Your task to perform on an android device: Set the phone to "Do not disturb". Image 0: 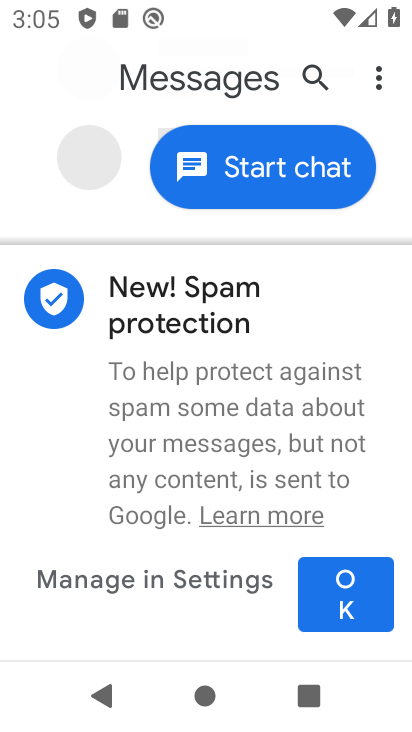
Step 0: press home button
Your task to perform on an android device: Set the phone to "Do not disturb". Image 1: 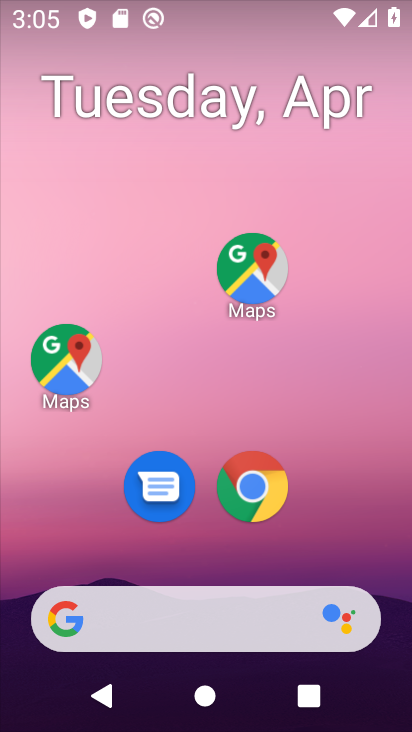
Step 1: drag from (228, 426) to (205, 127)
Your task to perform on an android device: Set the phone to "Do not disturb". Image 2: 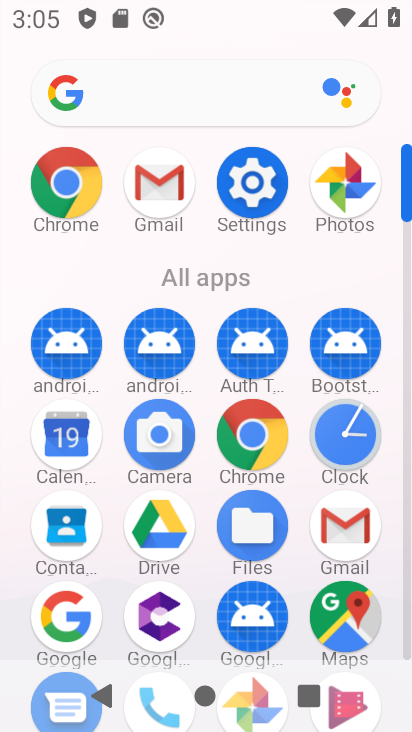
Step 2: click (250, 196)
Your task to perform on an android device: Set the phone to "Do not disturb". Image 3: 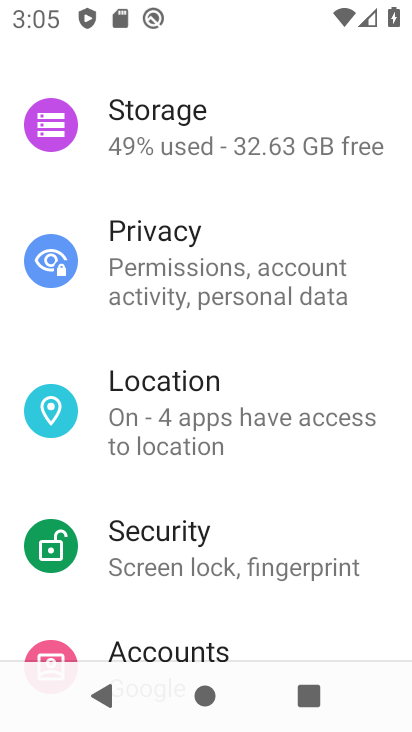
Step 3: drag from (180, 507) to (208, 114)
Your task to perform on an android device: Set the phone to "Do not disturb". Image 4: 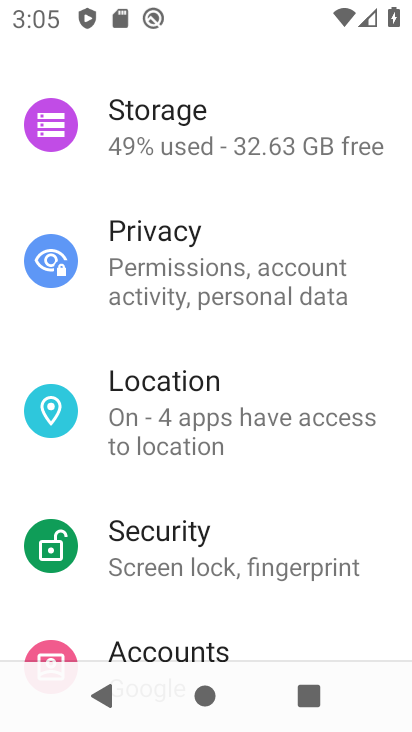
Step 4: drag from (216, 551) to (210, 210)
Your task to perform on an android device: Set the phone to "Do not disturb". Image 5: 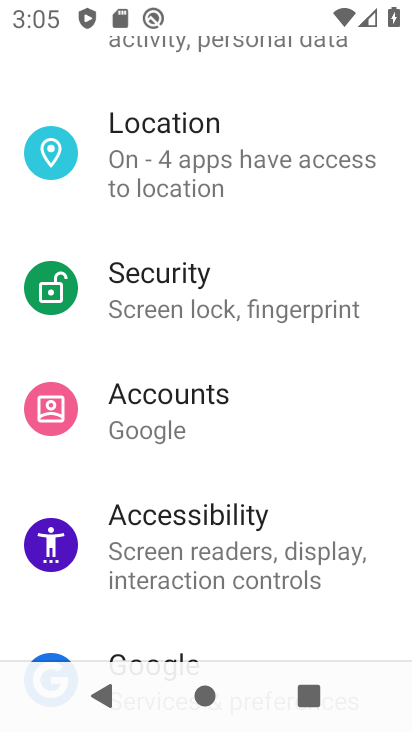
Step 5: drag from (204, 546) to (238, 182)
Your task to perform on an android device: Set the phone to "Do not disturb". Image 6: 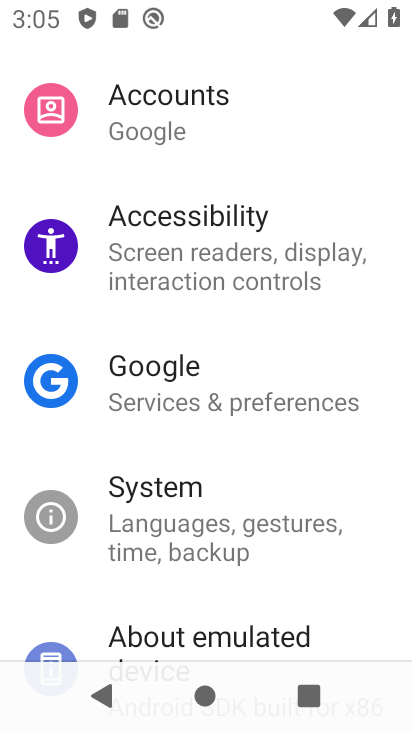
Step 6: drag from (204, 264) to (218, 132)
Your task to perform on an android device: Set the phone to "Do not disturb". Image 7: 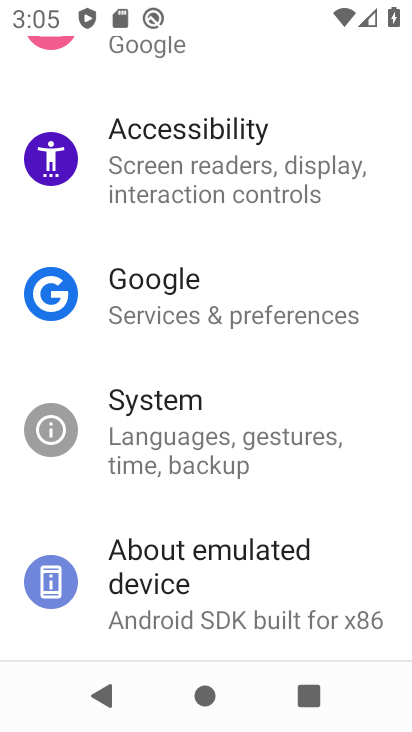
Step 7: drag from (233, 200) to (243, 702)
Your task to perform on an android device: Set the phone to "Do not disturb". Image 8: 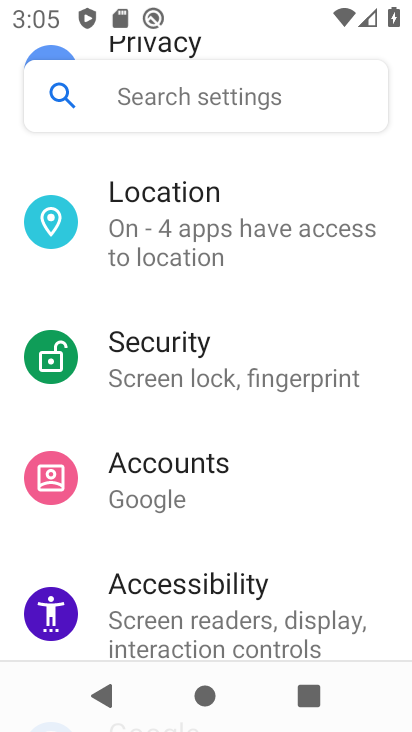
Step 8: drag from (195, 226) to (226, 503)
Your task to perform on an android device: Set the phone to "Do not disturb". Image 9: 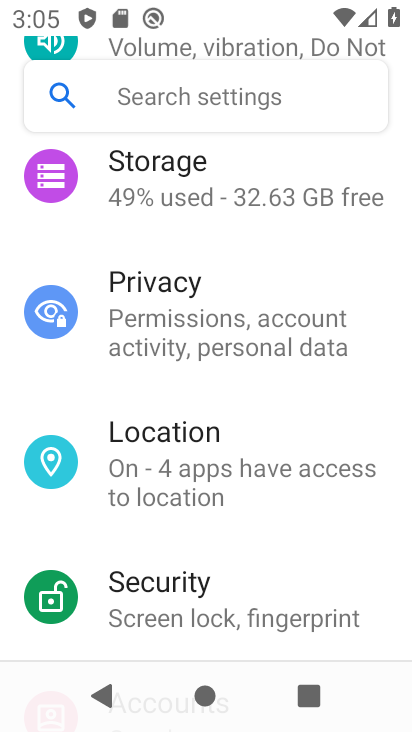
Step 9: drag from (223, 263) to (254, 653)
Your task to perform on an android device: Set the phone to "Do not disturb". Image 10: 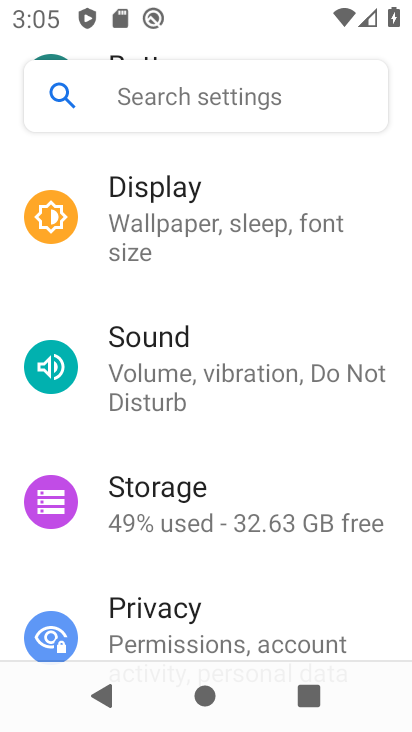
Step 10: click (244, 376)
Your task to perform on an android device: Set the phone to "Do not disturb". Image 11: 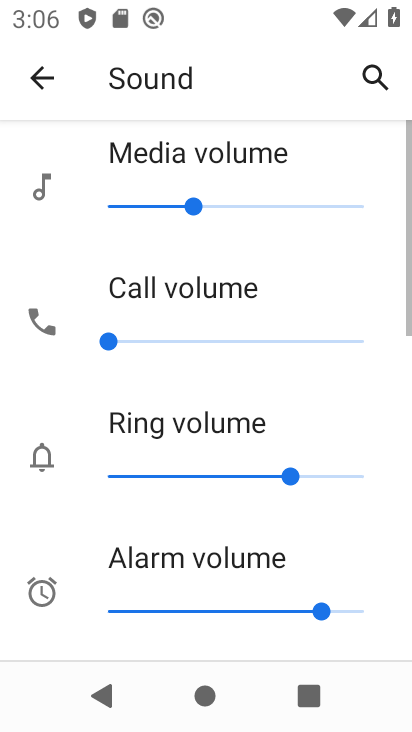
Step 11: drag from (232, 483) to (267, 106)
Your task to perform on an android device: Set the phone to "Do not disturb". Image 12: 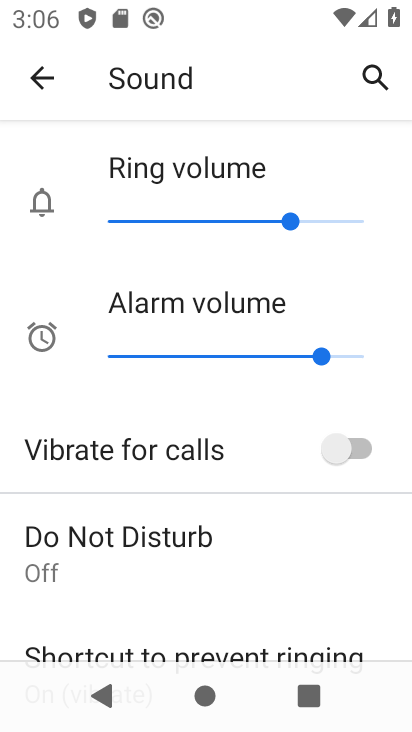
Step 12: drag from (199, 538) to (227, 261)
Your task to perform on an android device: Set the phone to "Do not disturb". Image 13: 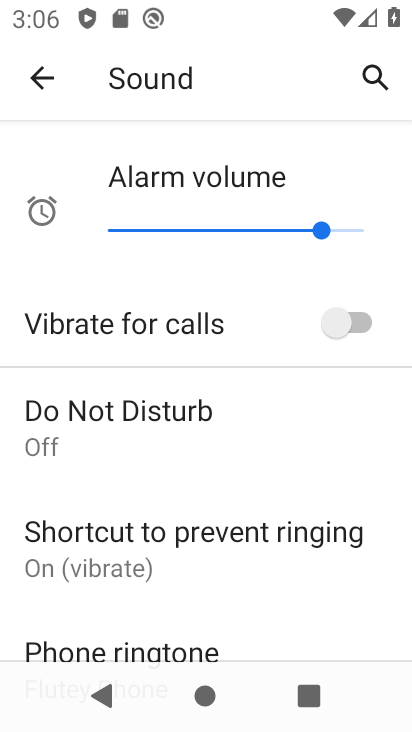
Step 13: click (206, 445)
Your task to perform on an android device: Set the phone to "Do not disturb". Image 14: 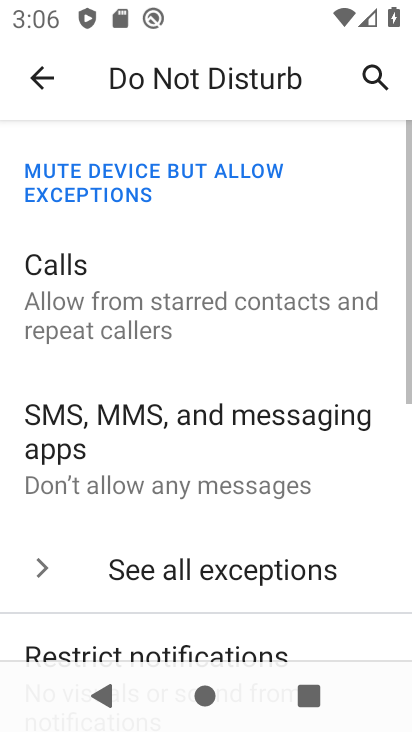
Step 14: drag from (239, 580) to (256, 201)
Your task to perform on an android device: Set the phone to "Do not disturb". Image 15: 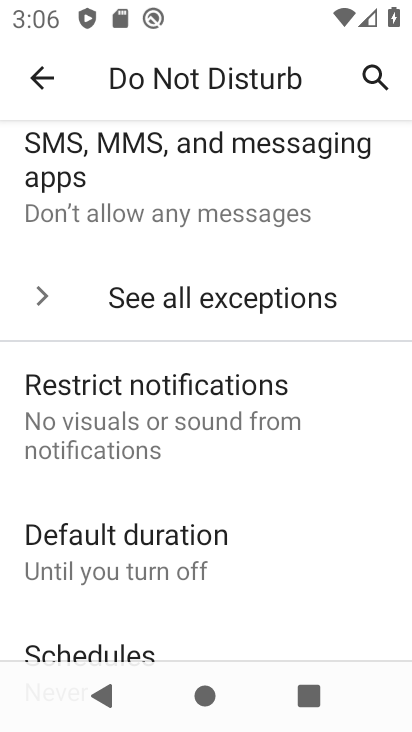
Step 15: drag from (211, 549) to (234, 211)
Your task to perform on an android device: Set the phone to "Do not disturb". Image 16: 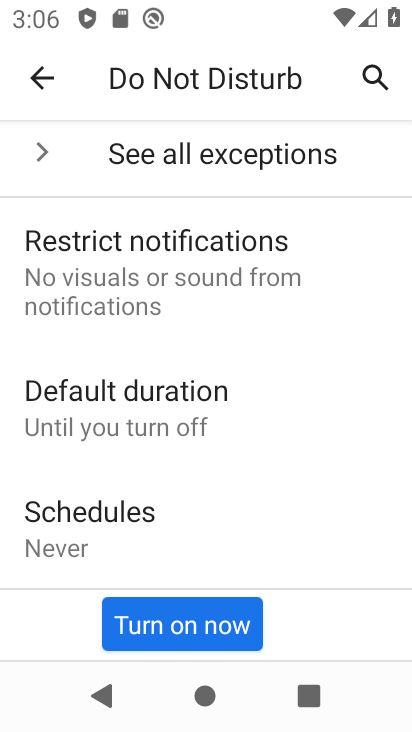
Step 16: click (204, 640)
Your task to perform on an android device: Set the phone to "Do not disturb". Image 17: 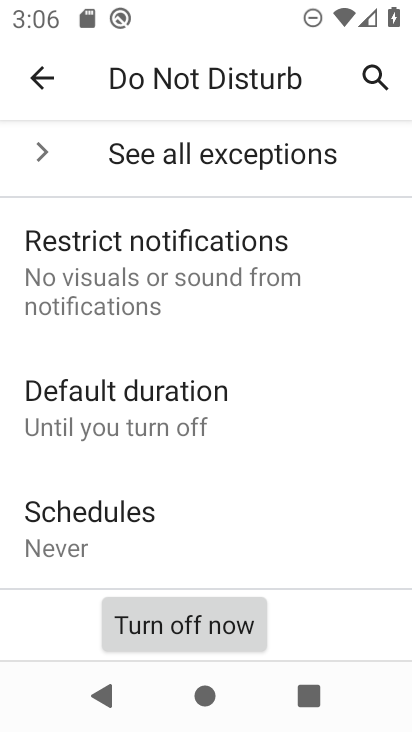
Step 17: task complete